Your task to perform on an android device: toggle priority inbox in the gmail app Image 0: 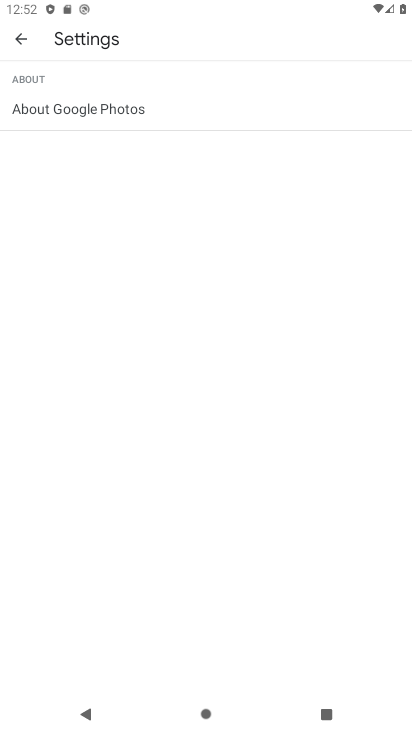
Step 0: press home button
Your task to perform on an android device: toggle priority inbox in the gmail app Image 1: 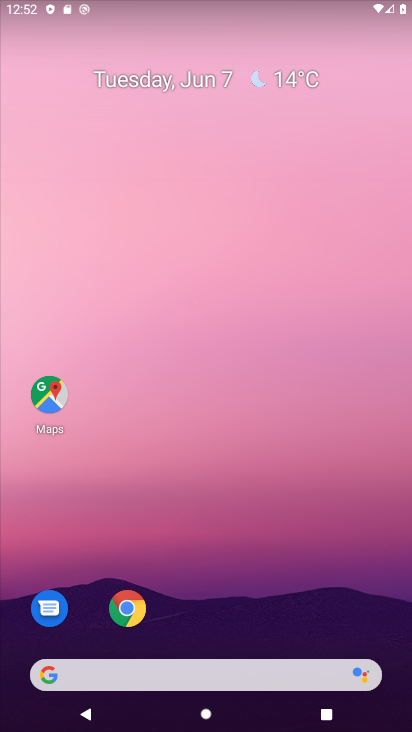
Step 1: drag from (242, 515) to (219, 169)
Your task to perform on an android device: toggle priority inbox in the gmail app Image 2: 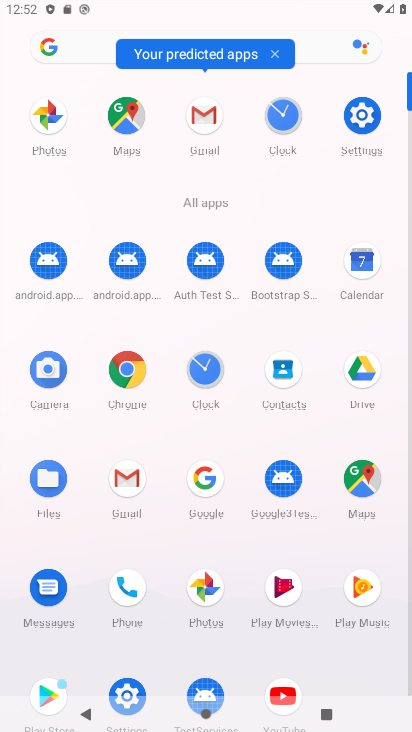
Step 2: drag from (126, 485) to (97, 245)
Your task to perform on an android device: toggle priority inbox in the gmail app Image 3: 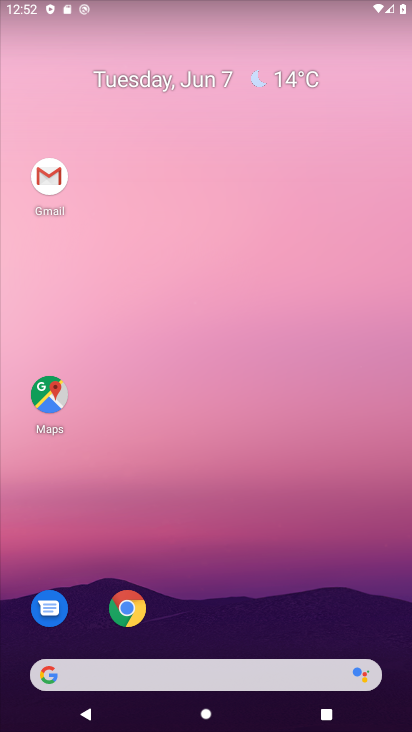
Step 3: click (43, 180)
Your task to perform on an android device: toggle priority inbox in the gmail app Image 4: 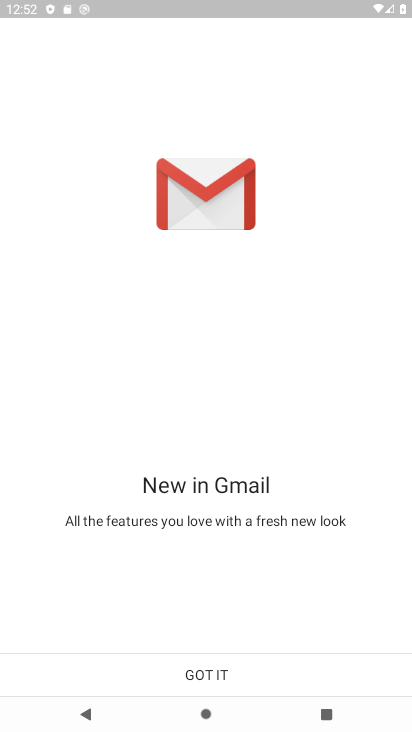
Step 4: click (256, 670)
Your task to perform on an android device: toggle priority inbox in the gmail app Image 5: 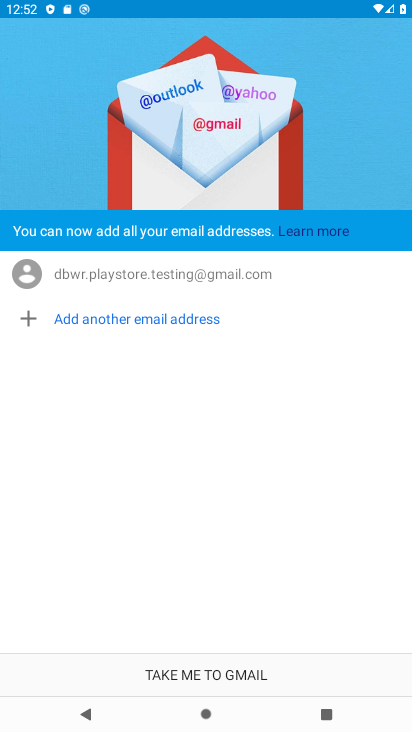
Step 5: click (256, 668)
Your task to perform on an android device: toggle priority inbox in the gmail app Image 6: 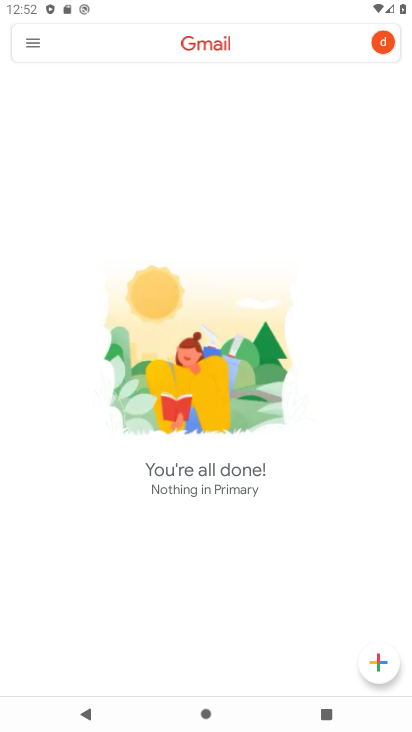
Step 6: click (28, 52)
Your task to perform on an android device: toggle priority inbox in the gmail app Image 7: 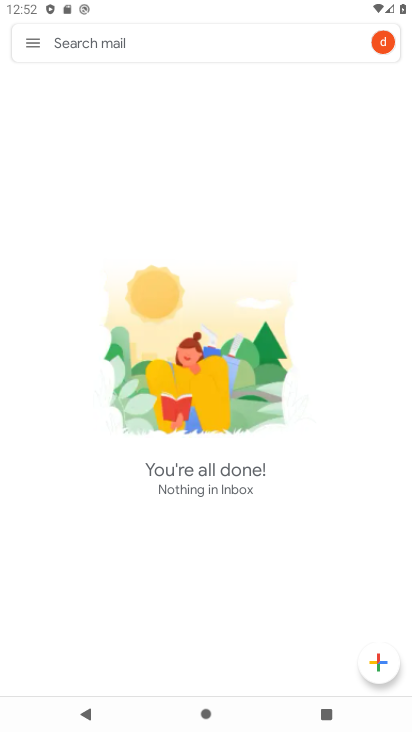
Step 7: click (33, 48)
Your task to perform on an android device: toggle priority inbox in the gmail app Image 8: 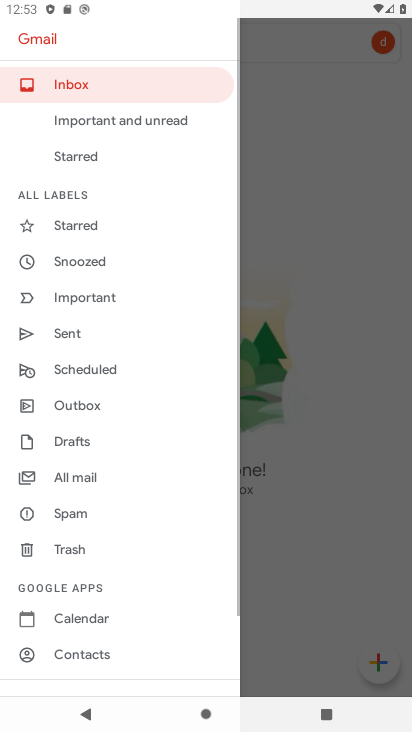
Step 8: drag from (88, 567) to (81, 275)
Your task to perform on an android device: toggle priority inbox in the gmail app Image 9: 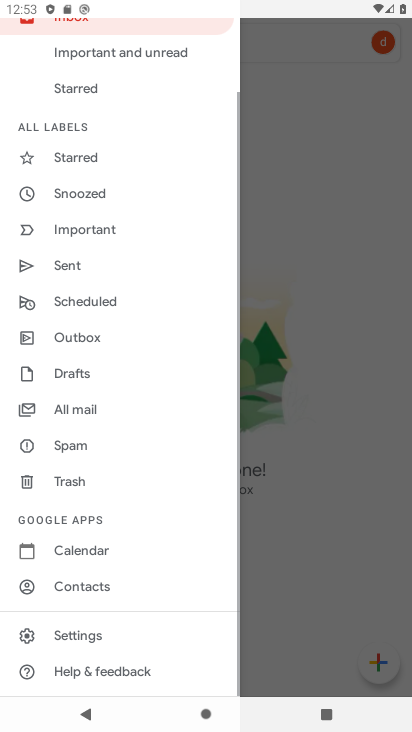
Step 9: click (108, 624)
Your task to perform on an android device: toggle priority inbox in the gmail app Image 10: 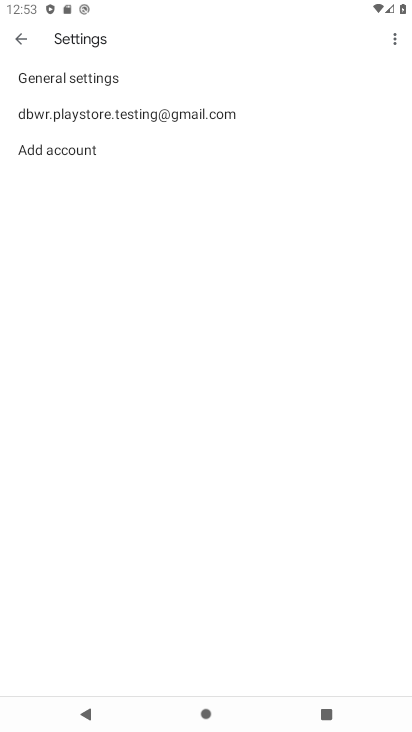
Step 10: click (102, 119)
Your task to perform on an android device: toggle priority inbox in the gmail app Image 11: 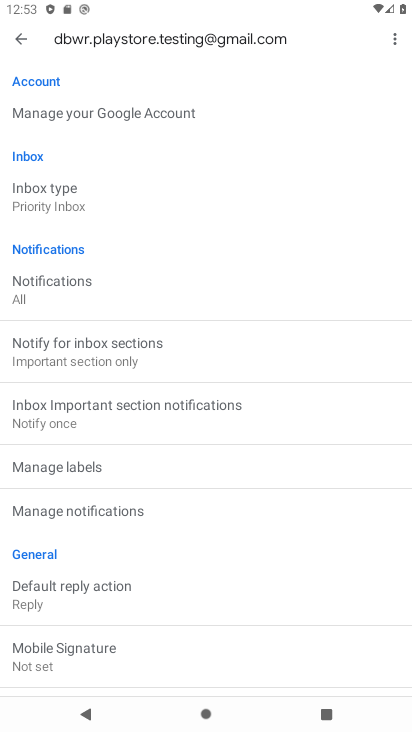
Step 11: click (104, 188)
Your task to perform on an android device: toggle priority inbox in the gmail app Image 12: 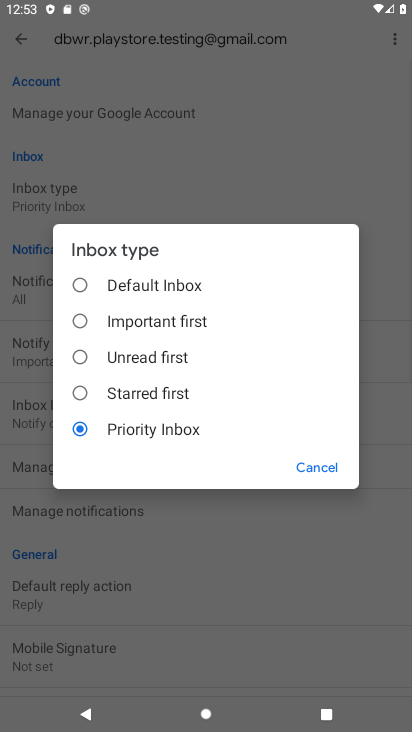
Step 12: click (114, 281)
Your task to perform on an android device: toggle priority inbox in the gmail app Image 13: 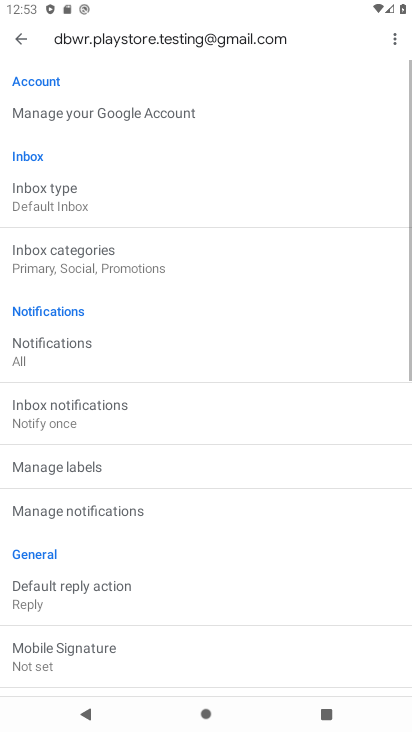
Step 13: task complete